Your task to perform on an android device: turn off notifications in google photos Image 0: 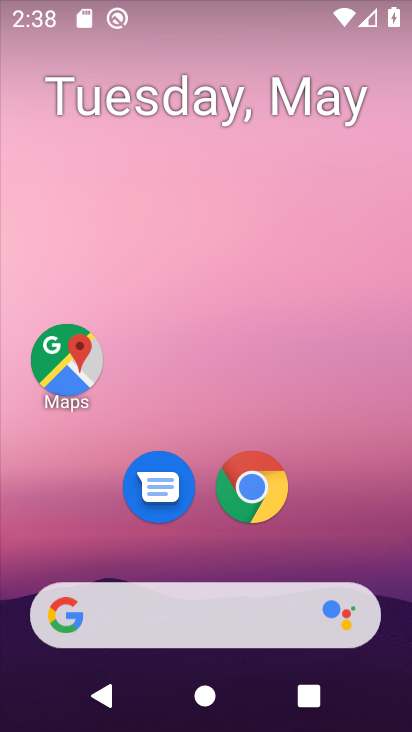
Step 0: drag from (386, 486) to (366, 275)
Your task to perform on an android device: turn off notifications in google photos Image 1: 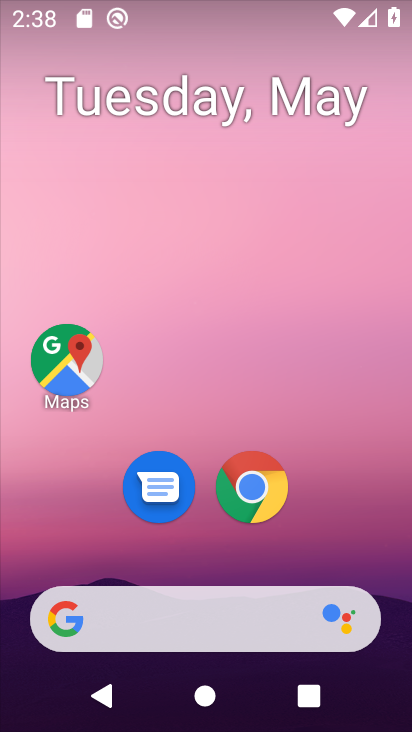
Step 1: drag from (397, 680) to (338, 195)
Your task to perform on an android device: turn off notifications in google photos Image 2: 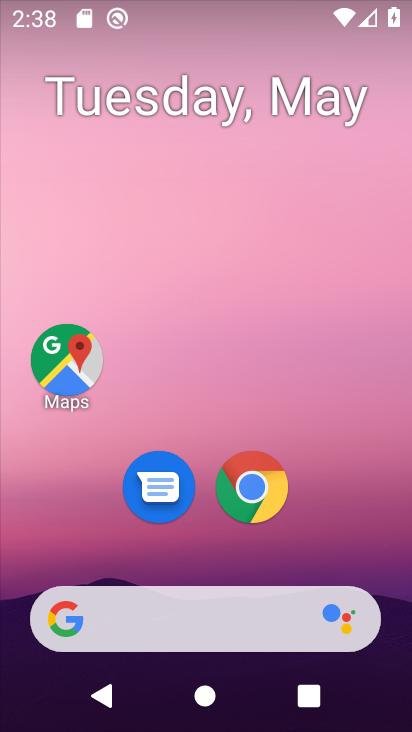
Step 2: drag from (388, 552) to (354, 122)
Your task to perform on an android device: turn off notifications in google photos Image 3: 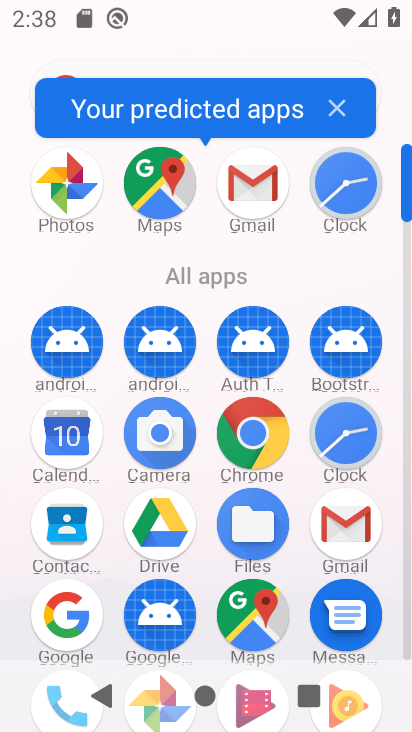
Step 3: click (405, 132)
Your task to perform on an android device: turn off notifications in google photos Image 4: 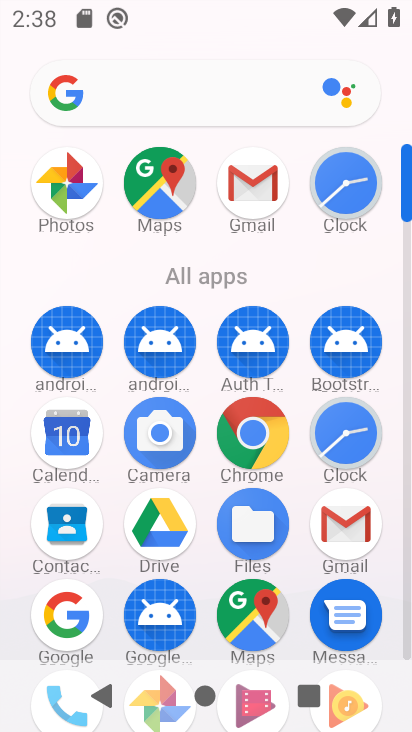
Step 4: drag from (406, 158) to (399, 73)
Your task to perform on an android device: turn off notifications in google photos Image 5: 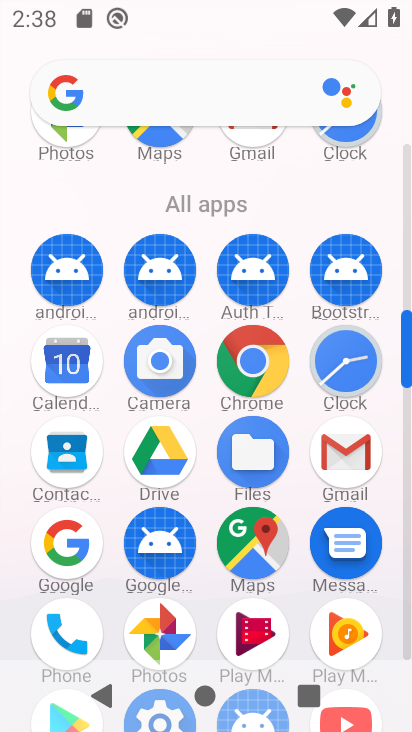
Step 5: click (160, 615)
Your task to perform on an android device: turn off notifications in google photos Image 6: 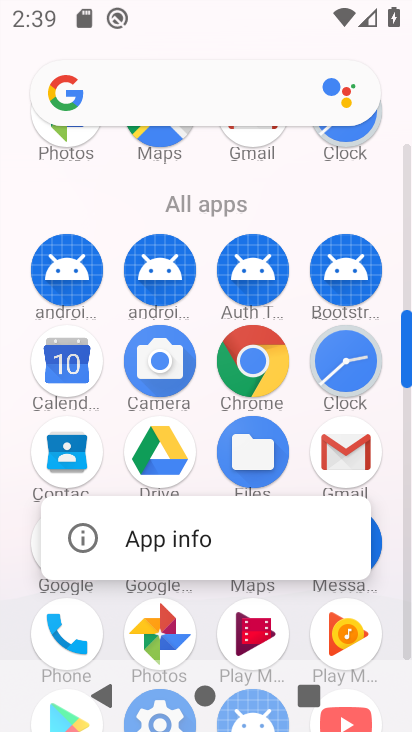
Step 6: click (174, 632)
Your task to perform on an android device: turn off notifications in google photos Image 7: 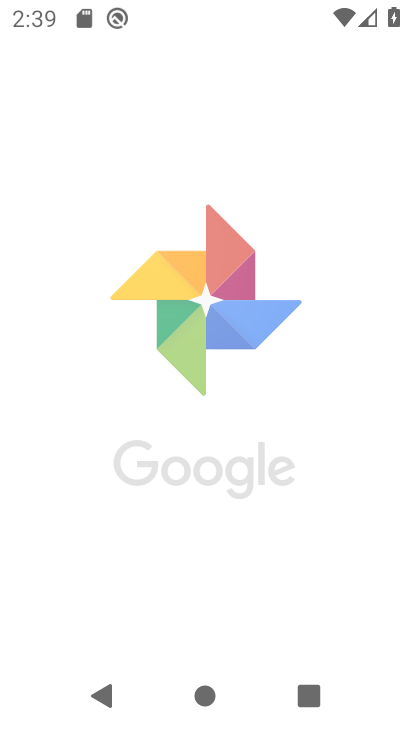
Step 7: click (174, 632)
Your task to perform on an android device: turn off notifications in google photos Image 8: 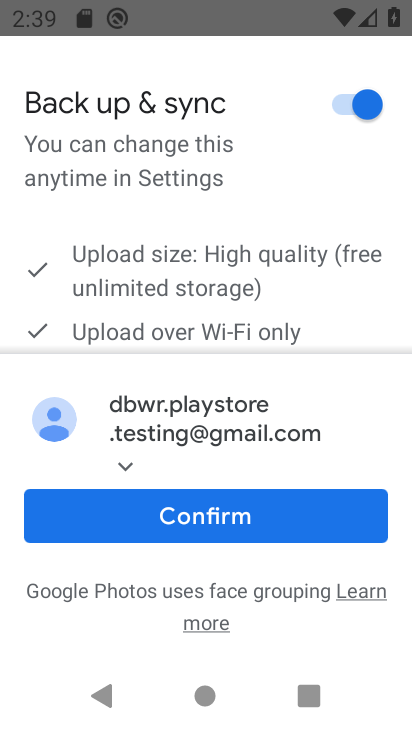
Step 8: click (275, 509)
Your task to perform on an android device: turn off notifications in google photos Image 9: 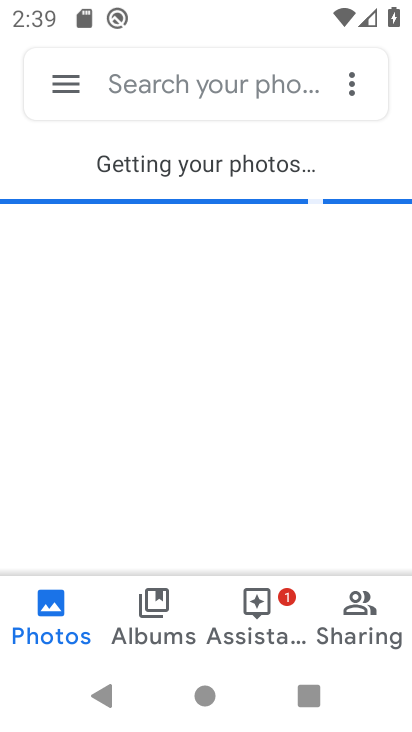
Step 9: click (80, 82)
Your task to perform on an android device: turn off notifications in google photos Image 10: 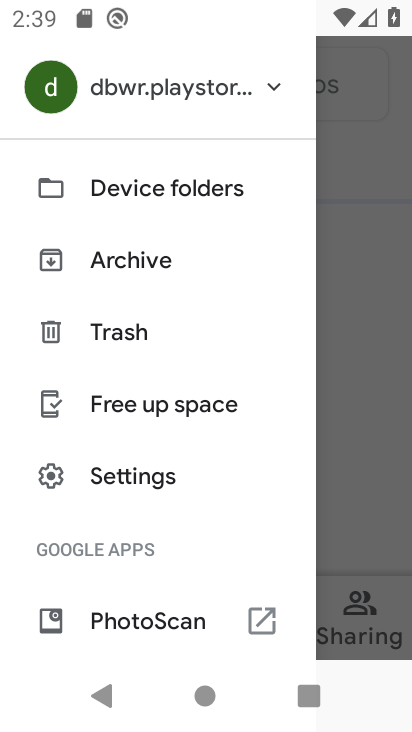
Step 10: click (112, 477)
Your task to perform on an android device: turn off notifications in google photos Image 11: 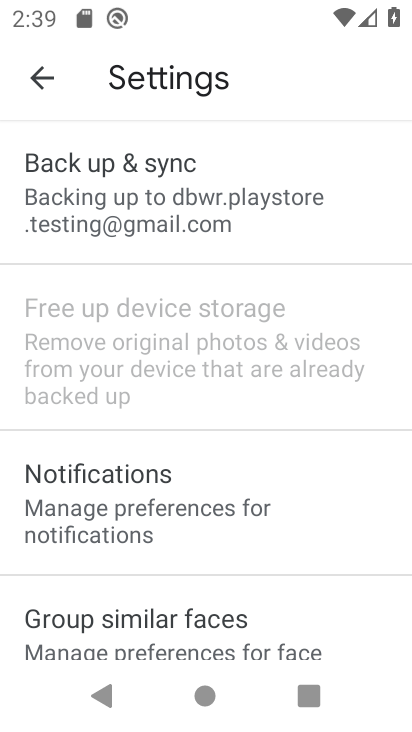
Step 11: click (111, 494)
Your task to perform on an android device: turn off notifications in google photos Image 12: 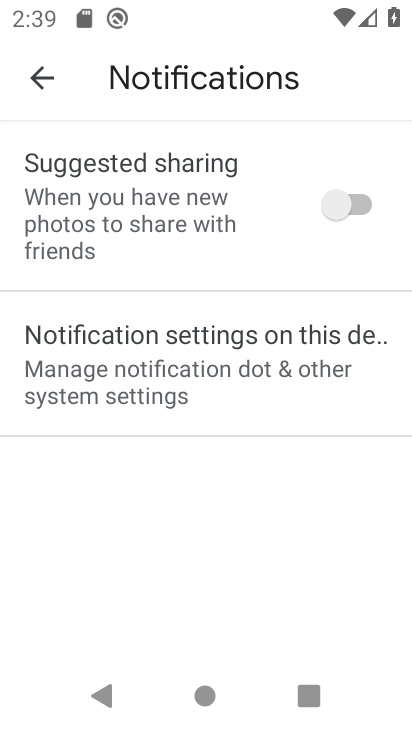
Step 12: click (182, 330)
Your task to perform on an android device: turn off notifications in google photos Image 13: 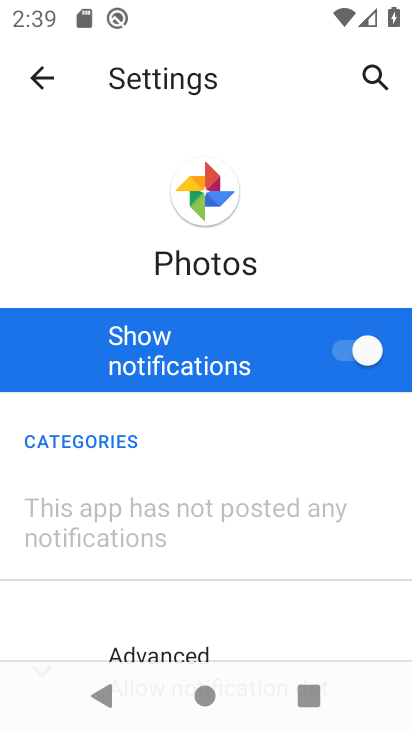
Step 13: click (332, 354)
Your task to perform on an android device: turn off notifications in google photos Image 14: 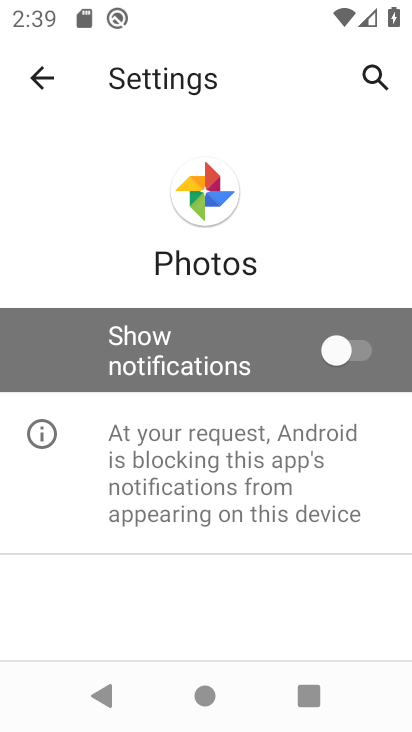
Step 14: task complete